Your task to perform on an android device: Open Wikipedia Image 0: 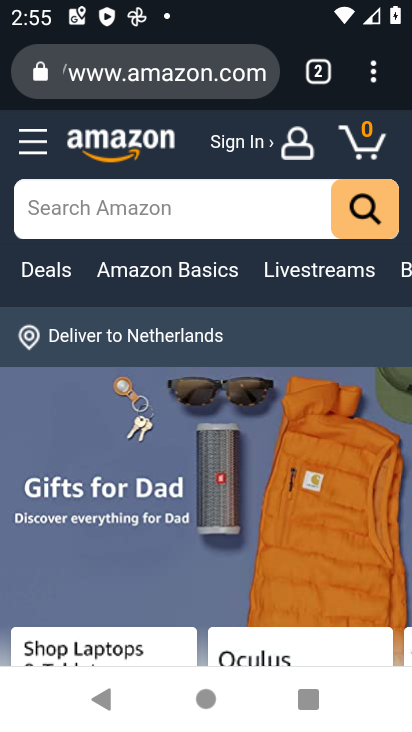
Step 0: press home button
Your task to perform on an android device: Open Wikipedia Image 1: 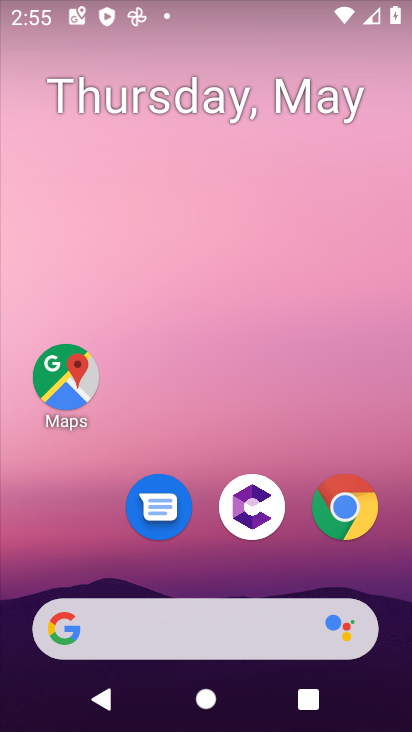
Step 1: click (223, 631)
Your task to perform on an android device: Open Wikipedia Image 2: 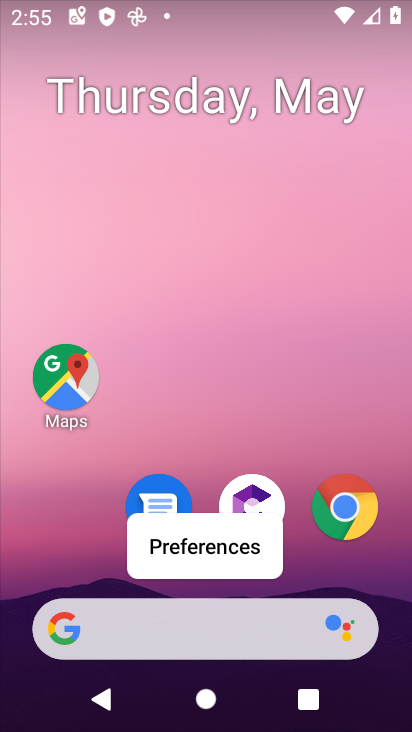
Step 2: click (169, 622)
Your task to perform on an android device: Open Wikipedia Image 3: 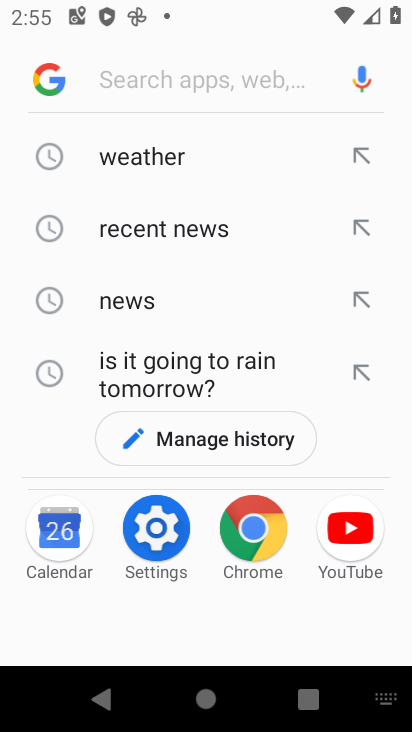
Step 3: type "Wikipedia"
Your task to perform on an android device: Open Wikipedia Image 4: 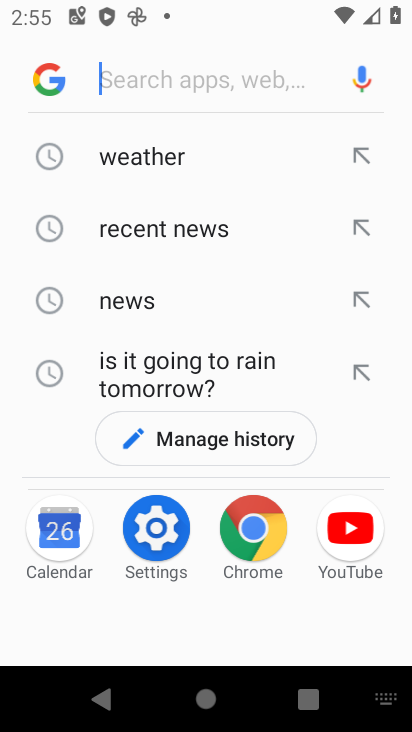
Step 4: click (128, 79)
Your task to perform on an android device: Open Wikipedia Image 5: 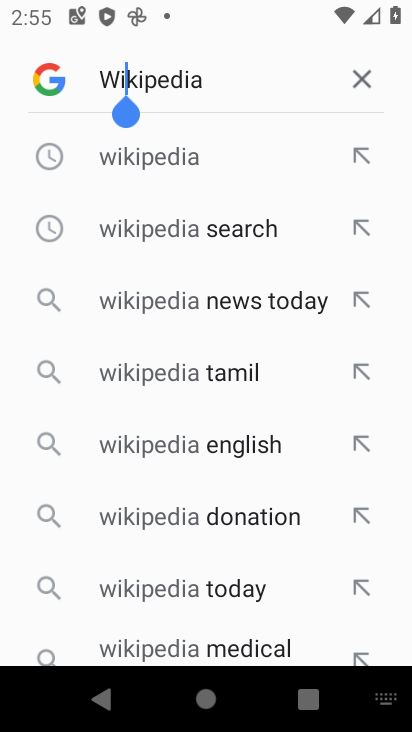
Step 5: click (175, 159)
Your task to perform on an android device: Open Wikipedia Image 6: 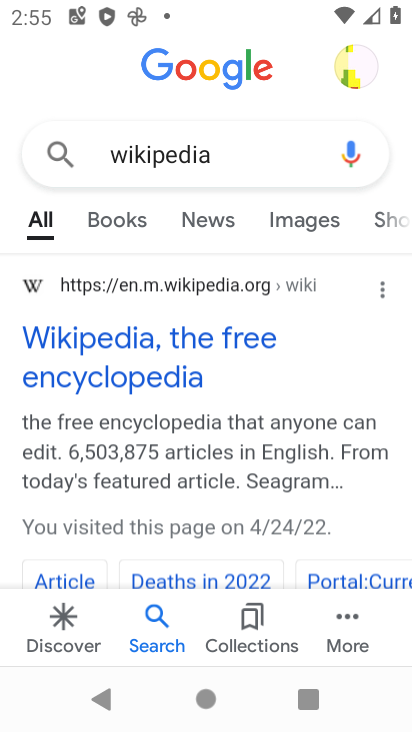
Step 6: click (56, 336)
Your task to perform on an android device: Open Wikipedia Image 7: 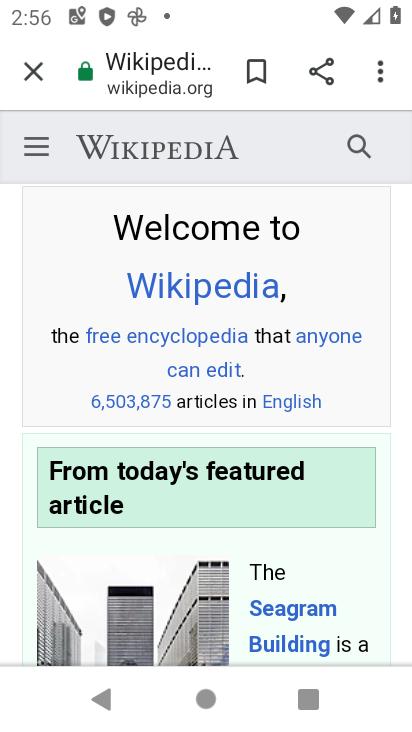
Step 7: task complete